Your task to perform on an android device: Show me popular games on the Play Store Image 0: 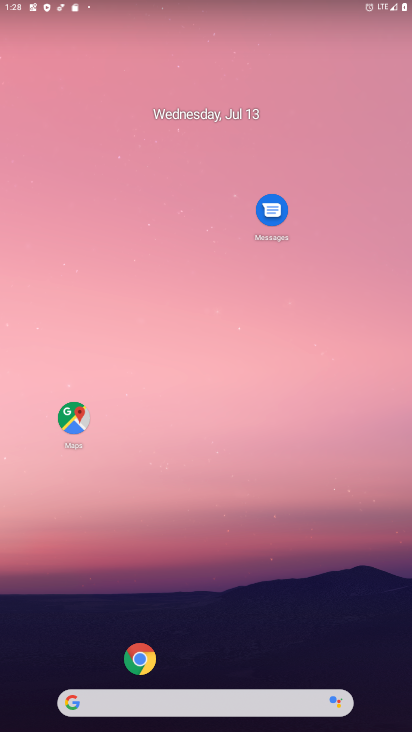
Step 0: drag from (26, 676) to (352, 480)
Your task to perform on an android device: Show me popular games on the Play Store Image 1: 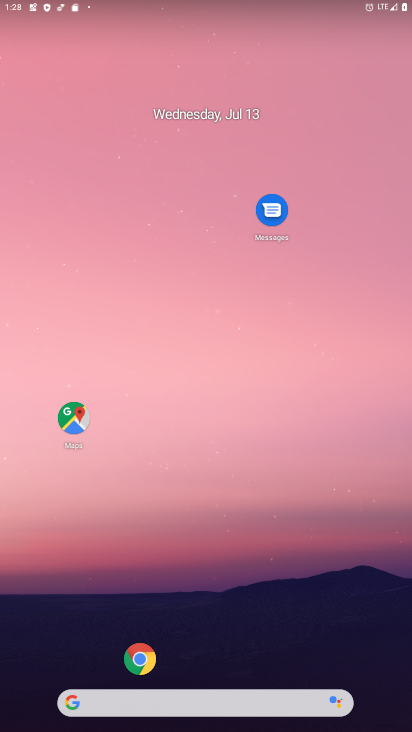
Step 1: drag from (90, 485) to (310, 51)
Your task to perform on an android device: Show me popular games on the Play Store Image 2: 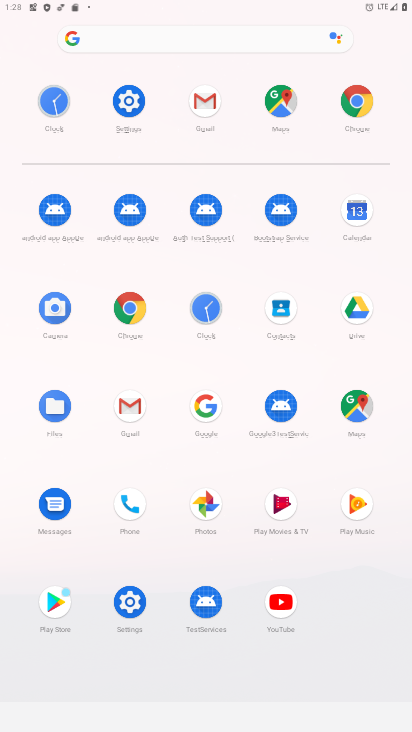
Step 2: click (48, 607)
Your task to perform on an android device: Show me popular games on the Play Store Image 3: 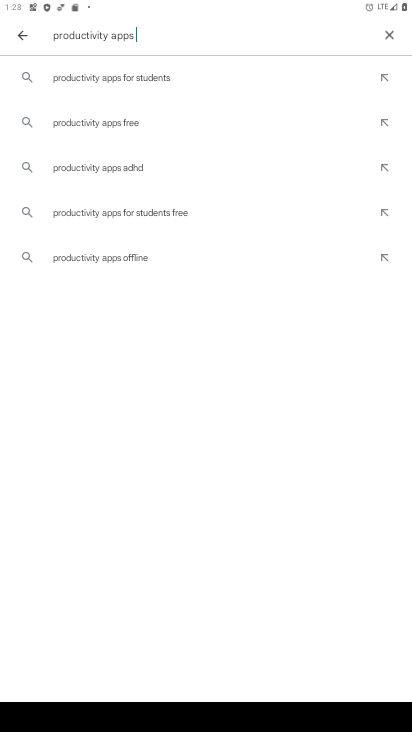
Step 3: task complete